Your task to perform on an android device: set default search engine in the chrome app Image 0: 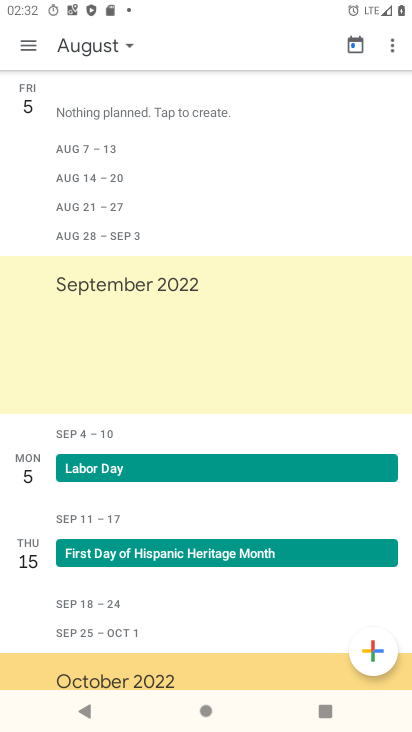
Step 0: press home button
Your task to perform on an android device: set default search engine in the chrome app Image 1: 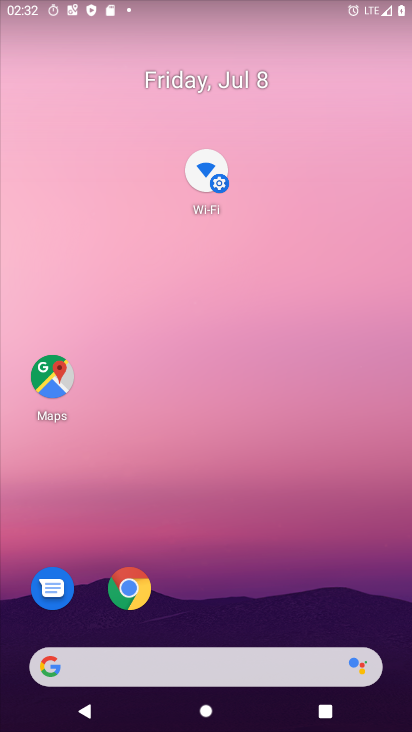
Step 1: drag from (168, 587) to (226, 236)
Your task to perform on an android device: set default search engine in the chrome app Image 2: 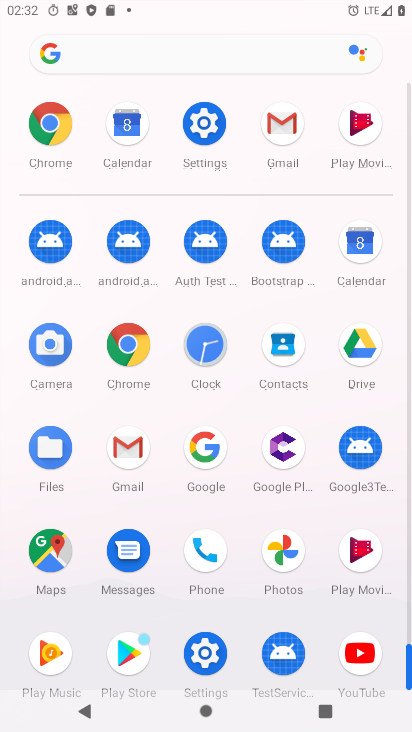
Step 2: click (127, 352)
Your task to perform on an android device: set default search engine in the chrome app Image 3: 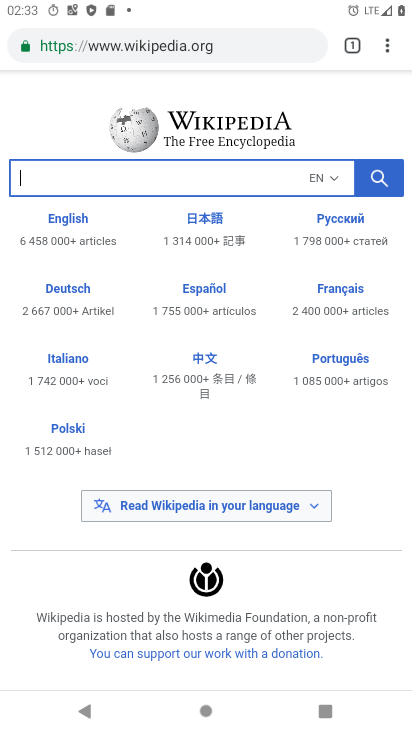
Step 3: click (374, 48)
Your task to perform on an android device: set default search engine in the chrome app Image 4: 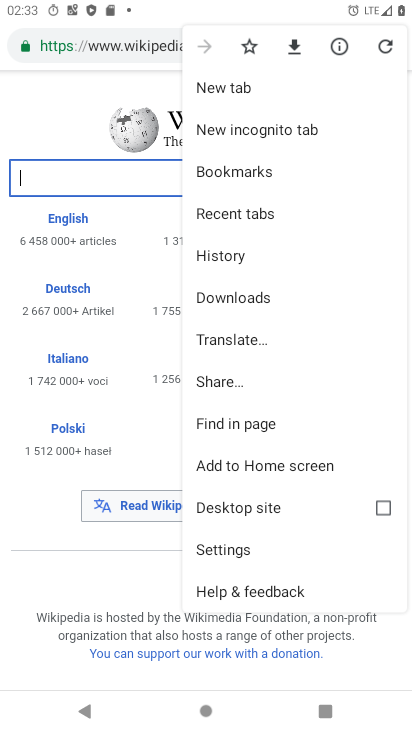
Step 4: click (250, 554)
Your task to perform on an android device: set default search engine in the chrome app Image 5: 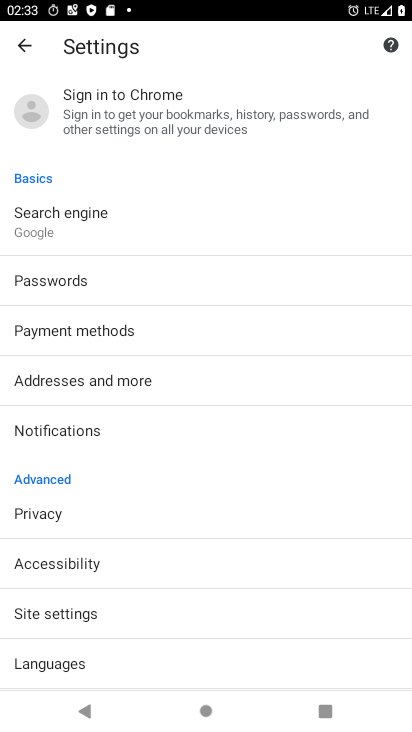
Step 5: click (95, 223)
Your task to perform on an android device: set default search engine in the chrome app Image 6: 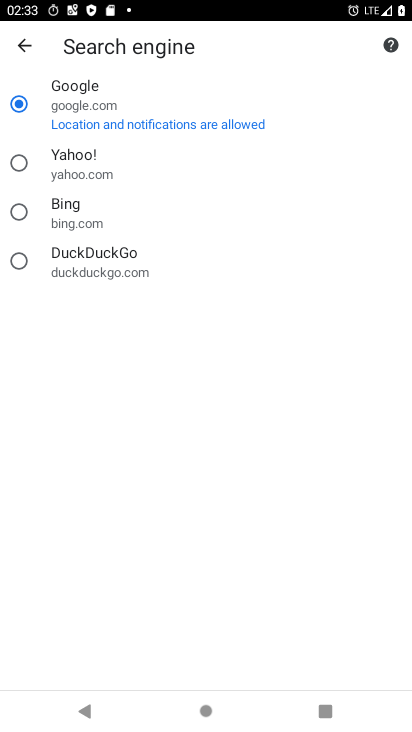
Step 6: drag from (161, 462) to (271, 8)
Your task to perform on an android device: set default search engine in the chrome app Image 7: 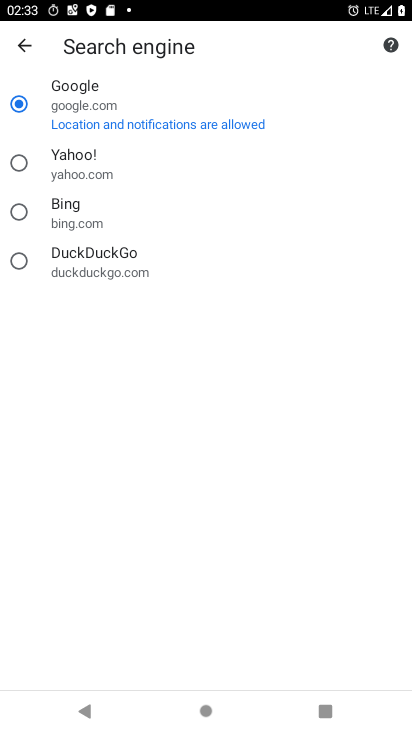
Step 7: drag from (210, 542) to (258, 189)
Your task to perform on an android device: set default search engine in the chrome app Image 8: 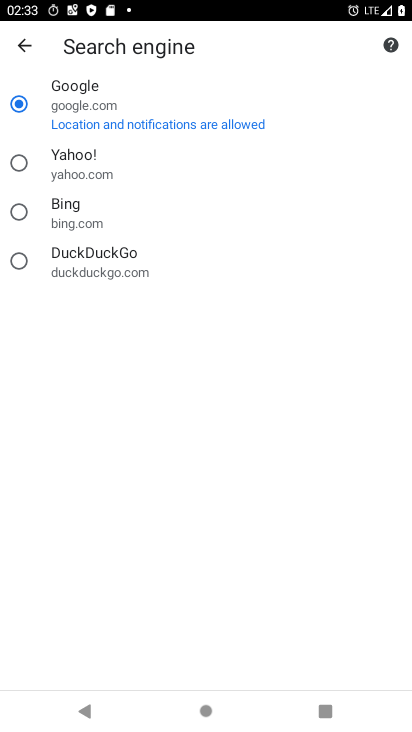
Step 8: drag from (107, 620) to (234, 311)
Your task to perform on an android device: set default search engine in the chrome app Image 9: 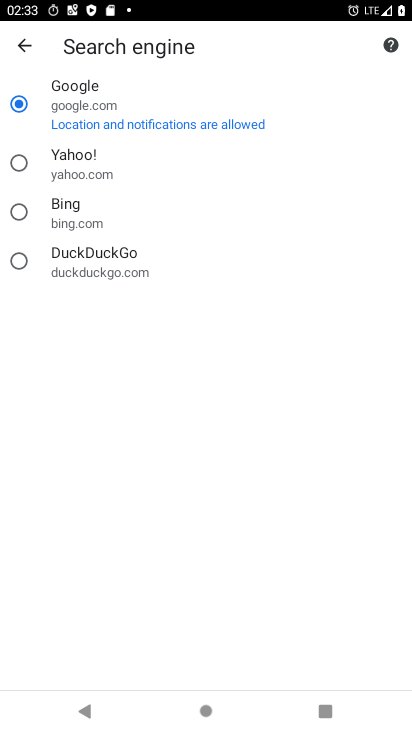
Step 9: drag from (79, 597) to (134, 236)
Your task to perform on an android device: set default search engine in the chrome app Image 10: 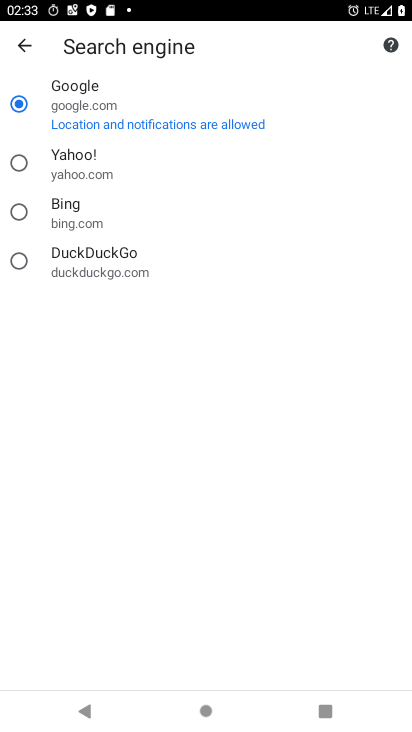
Step 10: drag from (104, 475) to (203, 99)
Your task to perform on an android device: set default search engine in the chrome app Image 11: 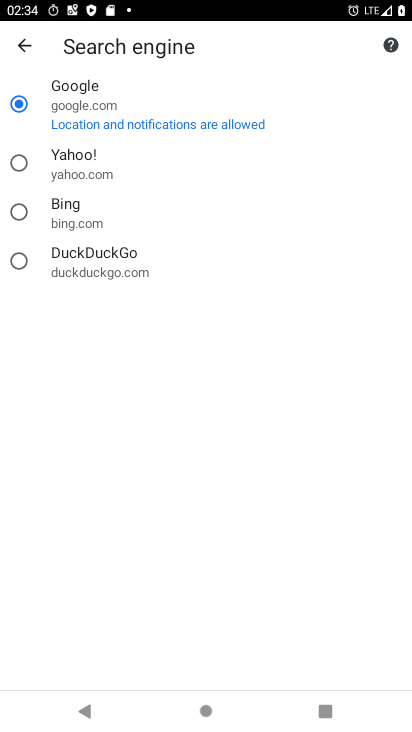
Step 11: drag from (190, 486) to (364, 230)
Your task to perform on an android device: set default search engine in the chrome app Image 12: 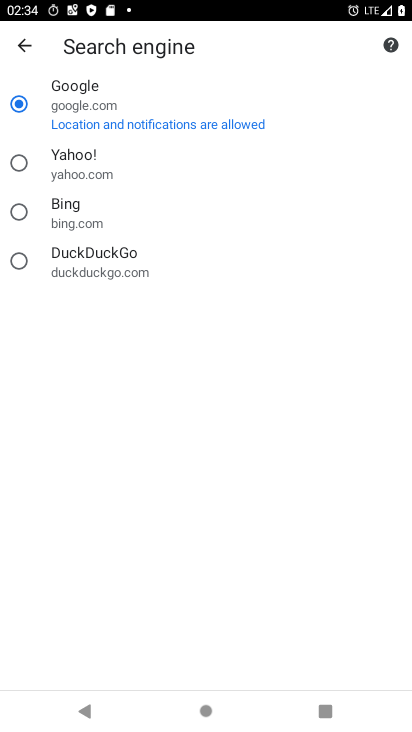
Step 12: drag from (213, 578) to (271, 332)
Your task to perform on an android device: set default search engine in the chrome app Image 13: 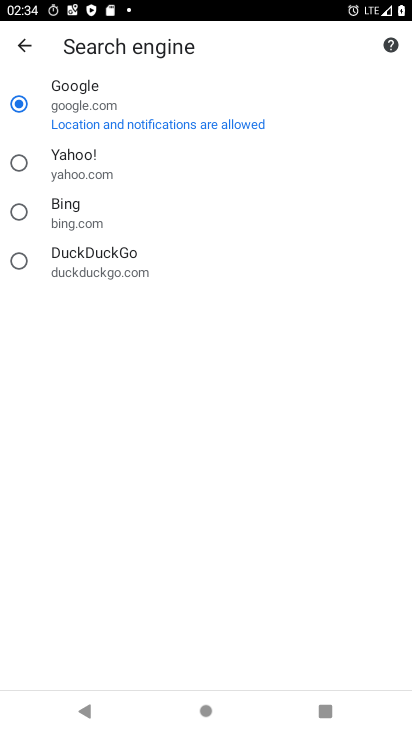
Step 13: drag from (254, 455) to (259, 198)
Your task to perform on an android device: set default search engine in the chrome app Image 14: 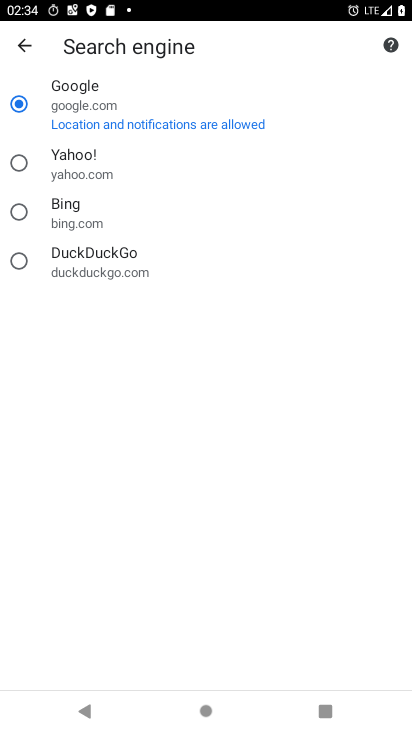
Step 14: click (266, 532)
Your task to perform on an android device: set default search engine in the chrome app Image 15: 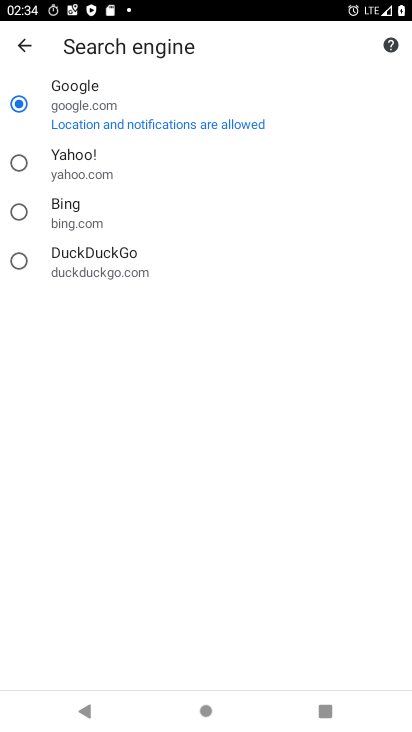
Step 15: task complete